Your task to perform on an android device: turn off improve location accuracy Image 0: 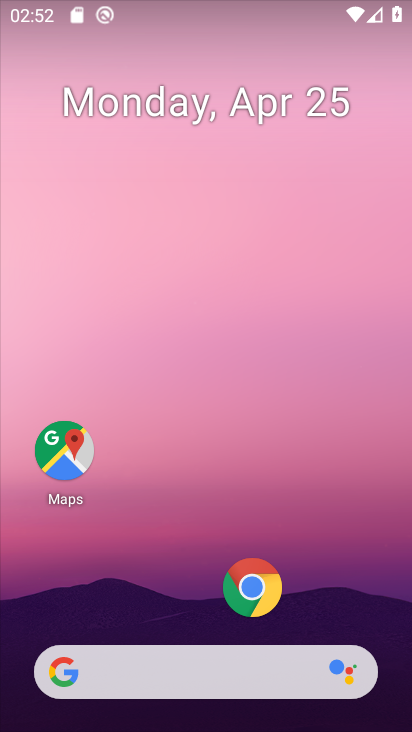
Step 0: drag from (214, 619) to (183, 43)
Your task to perform on an android device: turn off improve location accuracy Image 1: 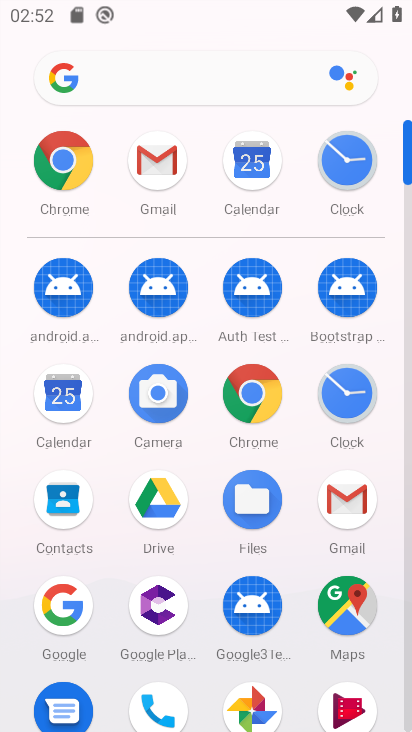
Step 1: drag from (202, 626) to (222, 89)
Your task to perform on an android device: turn off improve location accuracy Image 2: 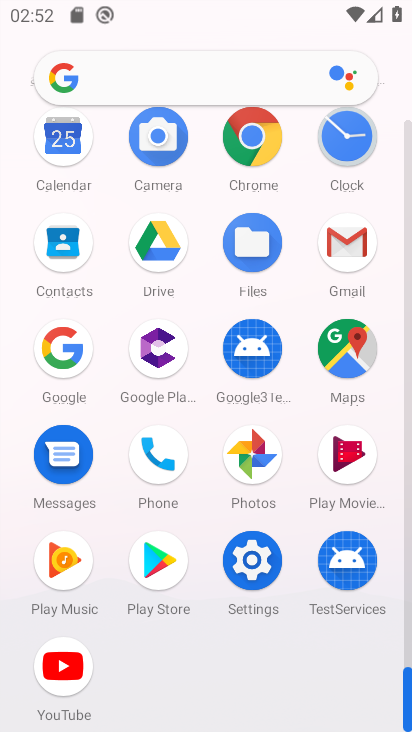
Step 2: click (251, 553)
Your task to perform on an android device: turn off improve location accuracy Image 3: 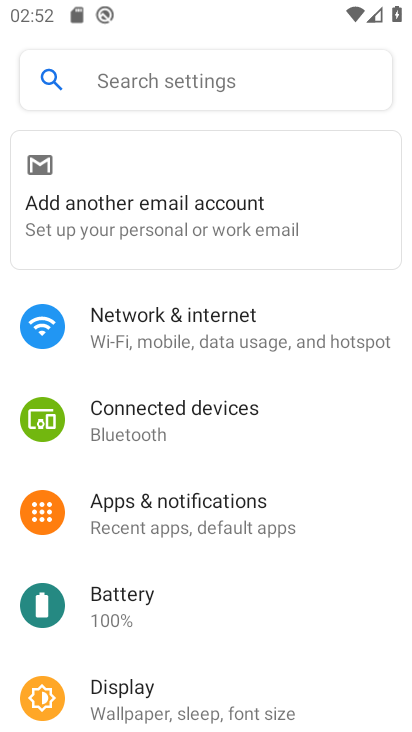
Step 3: drag from (189, 639) to (192, 157)
Your task to perform on an android device: turn off improve location accuracy Image 4: 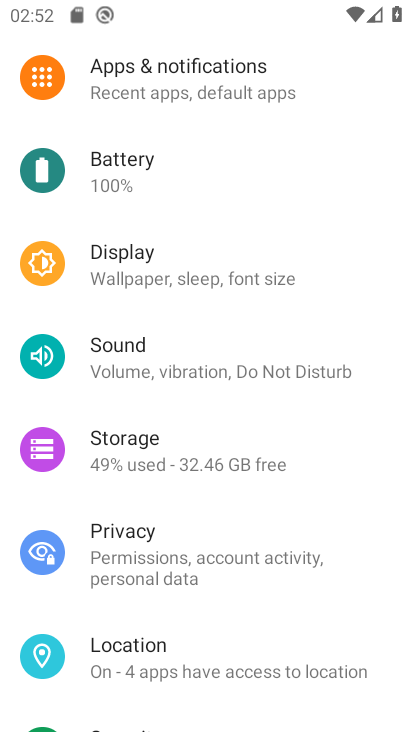
Step 4: click (178, 641)
Your task to perform on an android device: turn off improve location accuracy Image 5: 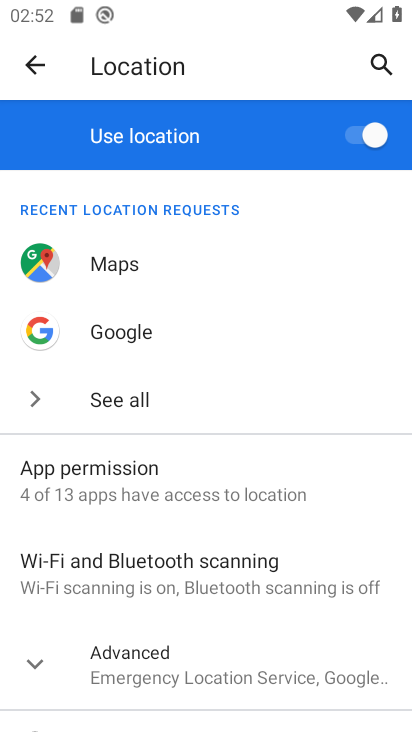
Step 5: click (34, 660)
Your task to perform on an android device: turn off improve location accuracy Image 6: 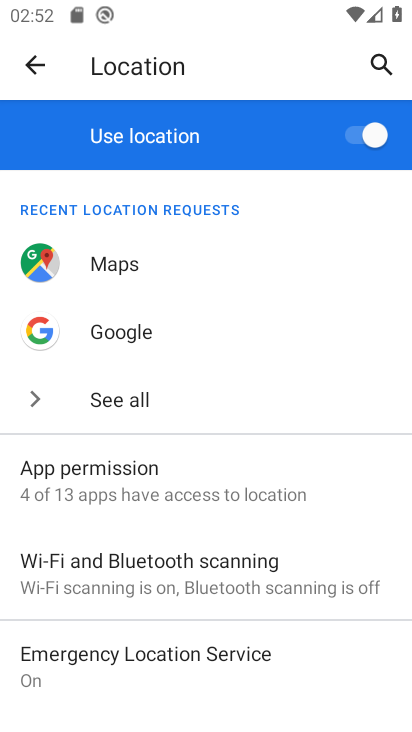
Step 6: drag from (151, 686) to (149, 208)
Your task to perform on an android device: turn off improve location accuracy Image 7: 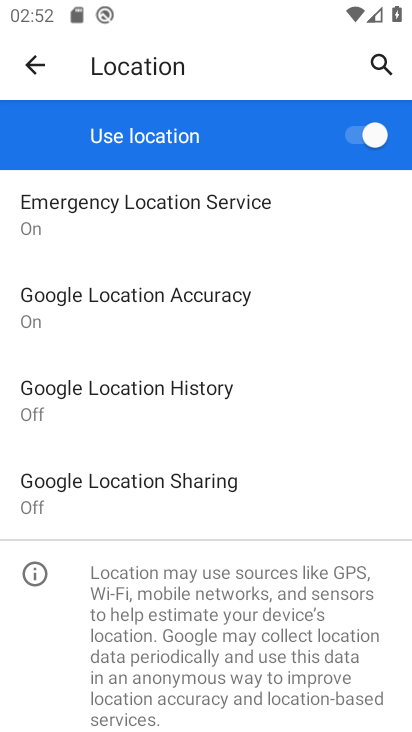
Step 7: click (56, 316)
Your task to perform on an android device: turn off improve location accuracy Image 8: 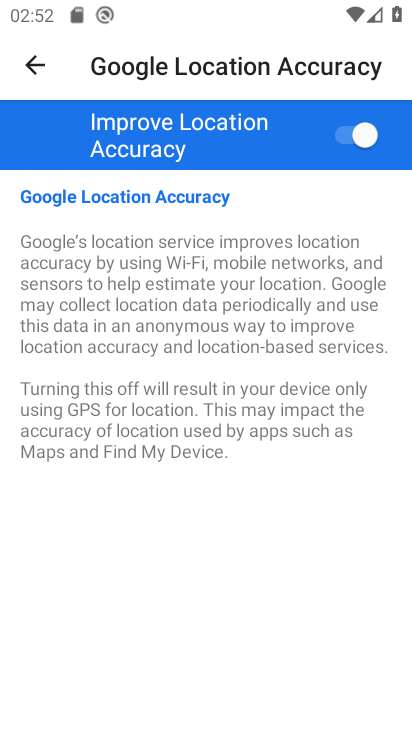
Step 8: click (349, 130)
Your task to perform on an android device: turn off improve location accuracy Image 9: 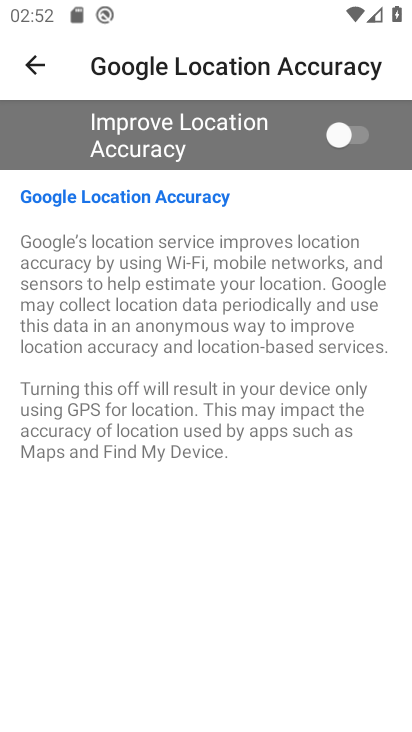
Step 9: task complete